Your task to perform on an android device: turn off smart reply in the gmail app Image 0: 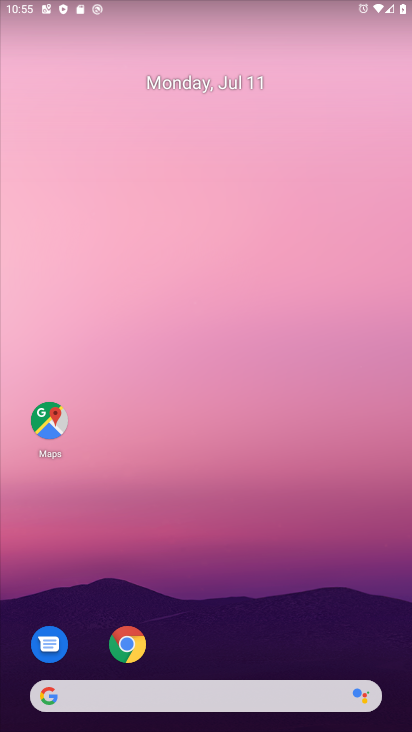
Step 0: drag from (220, 513) to (250, 95)
Your task to perform on an android device: turn off smart reply in the gmail app Image 1: 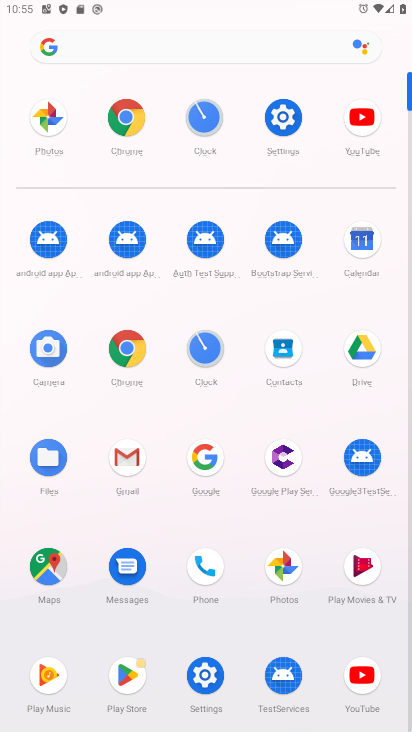
Step 1: click (118, 454)
Your task to perform on an android device: turn off smart reply in the gmail app Image 2: 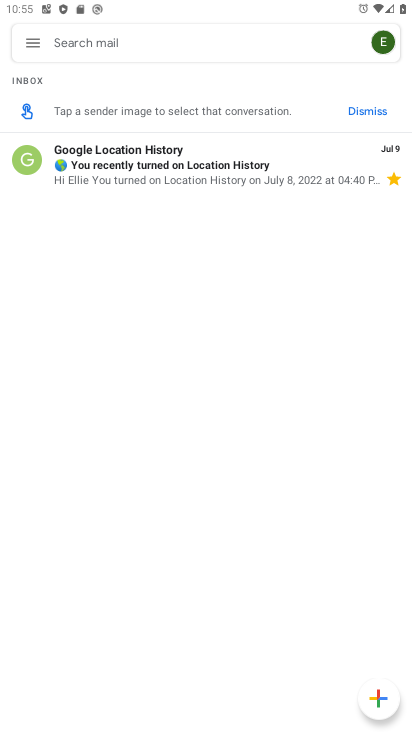
Step 2: click (32, 36)
Your task to perform on an android device: turn off smart reply in the gmail app Image 3: 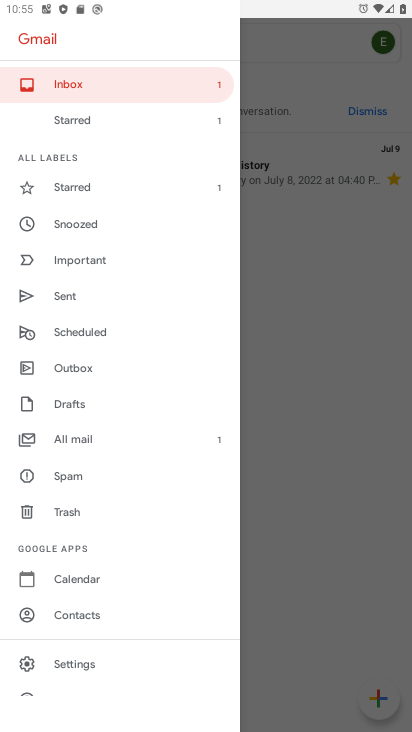
Step 3: click (106, 659)
Your task to perform on an android device: turn off smart reply in the gmail app Image 4: 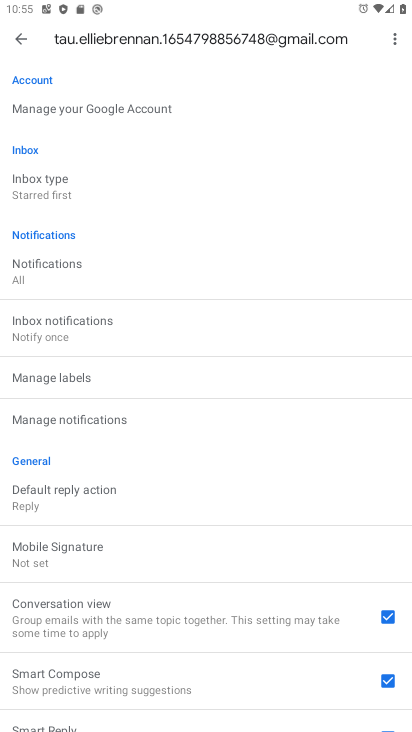
Step 4: drag from (245, 702) to (285, 115)
Your task to perform on an android device: turn off smart reply in the gmail app Image 5: 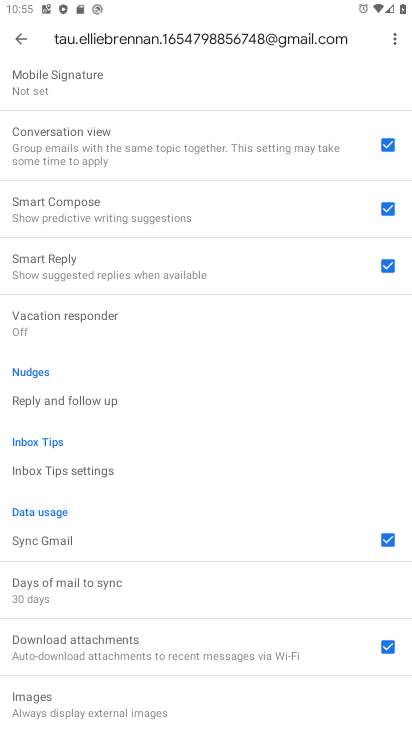
Step 5: click (387, 261)
Your task to perform on an android device: turn off smart reply in the gmail app Image 6: 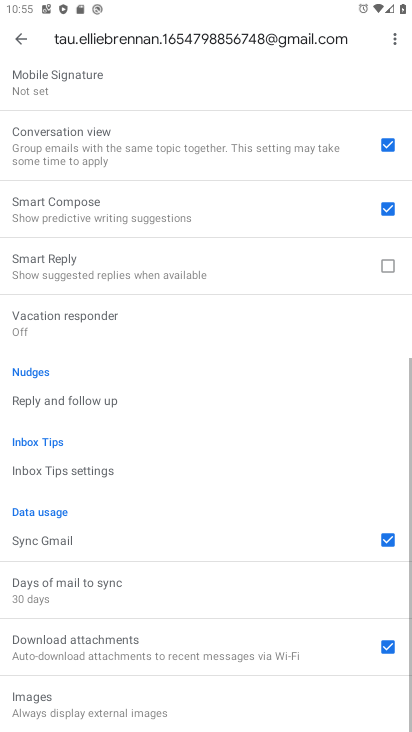
Step 6: task complete